Your task to perform on an android device: move a message to another label in the gmail app Image 0: 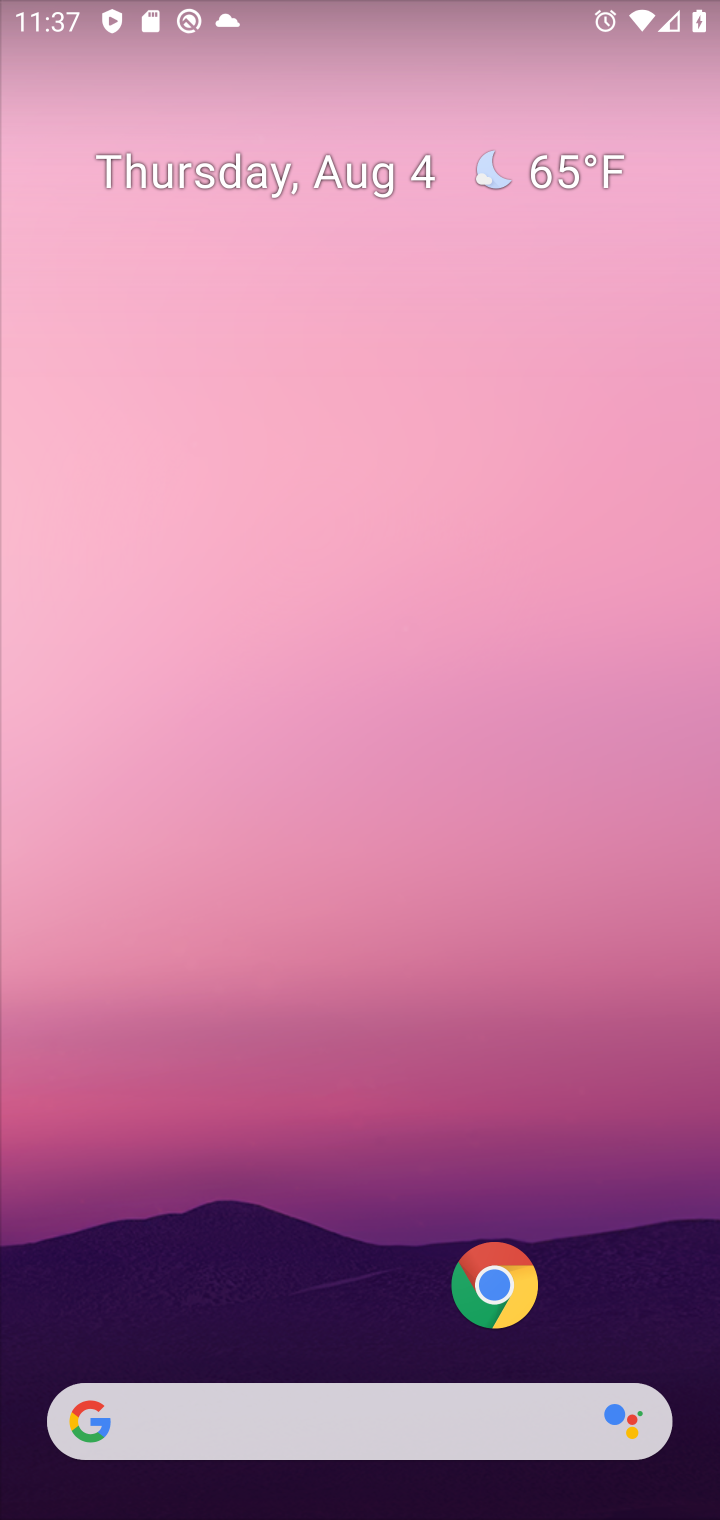
Step 0: drag from (316, 954) to (170, 334)
Your task to perform on an android device: move a message to another label in the gmail app Image 1: 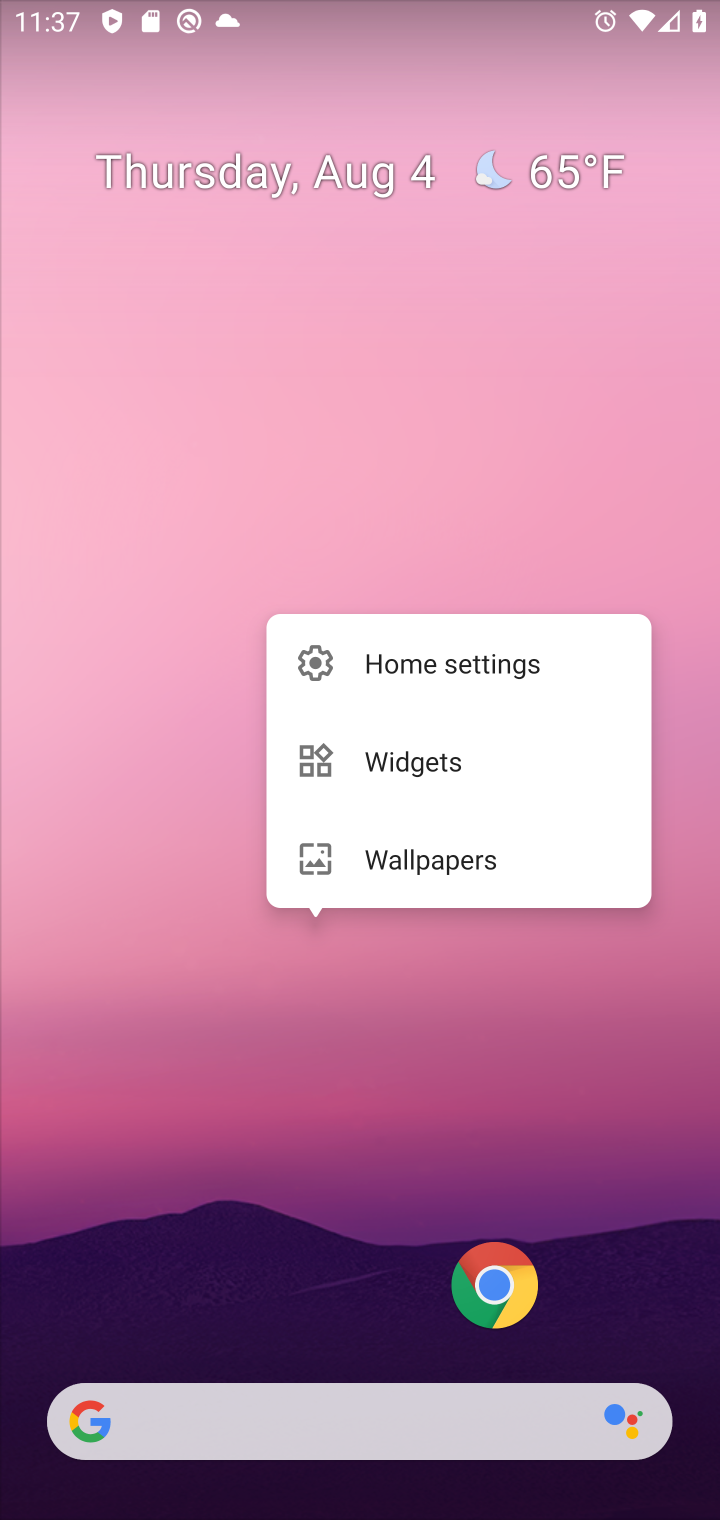
Step 1: click (118, 944)
Your task to perform on an android device: move a message to another label in the gmail app Image 2: 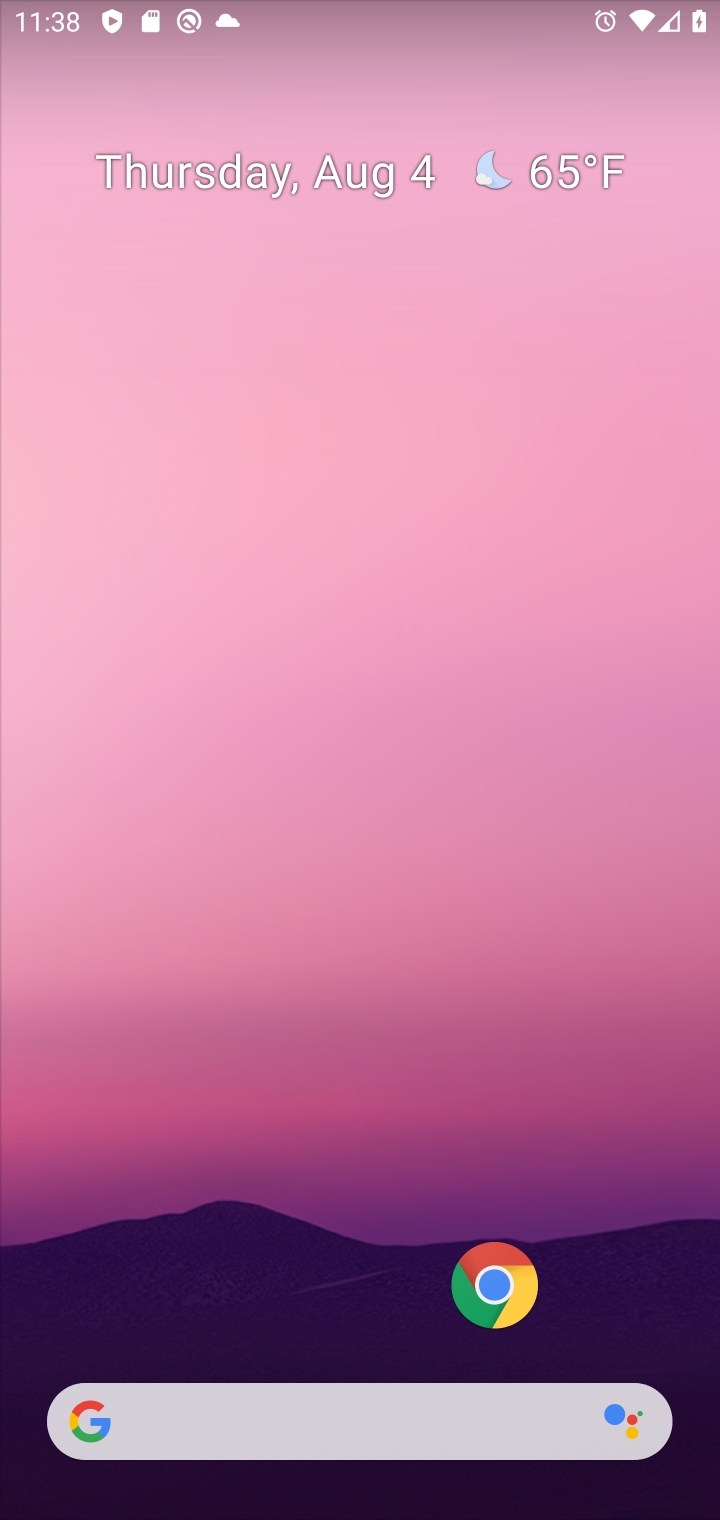
Step 2: drag from (328, 1038) to (310, 217)
Your task to perform on an android device: move a message to another label in the gmail app Image 3: 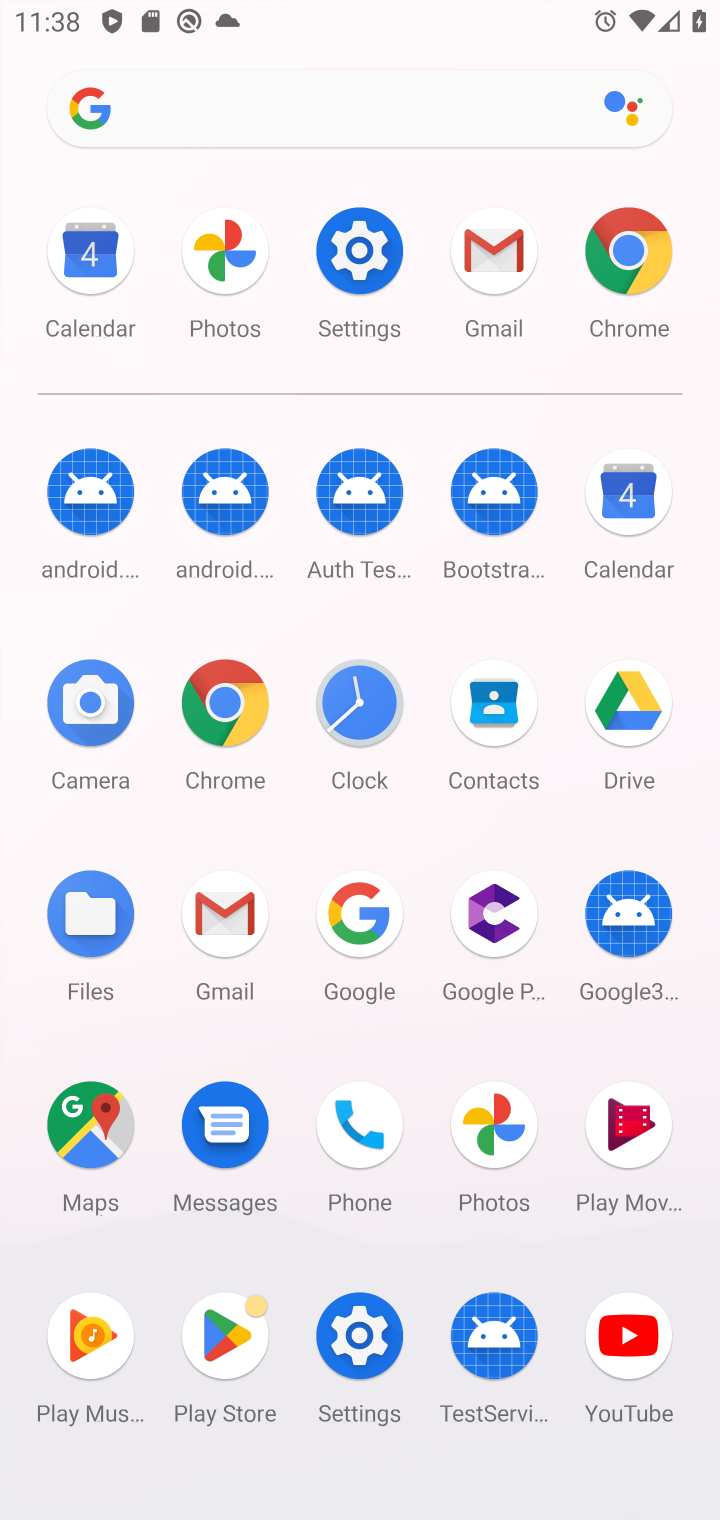
Step 3: click (518, 236)
Your task to perform on an android device: move a message to another label in the gmail app Image 4: 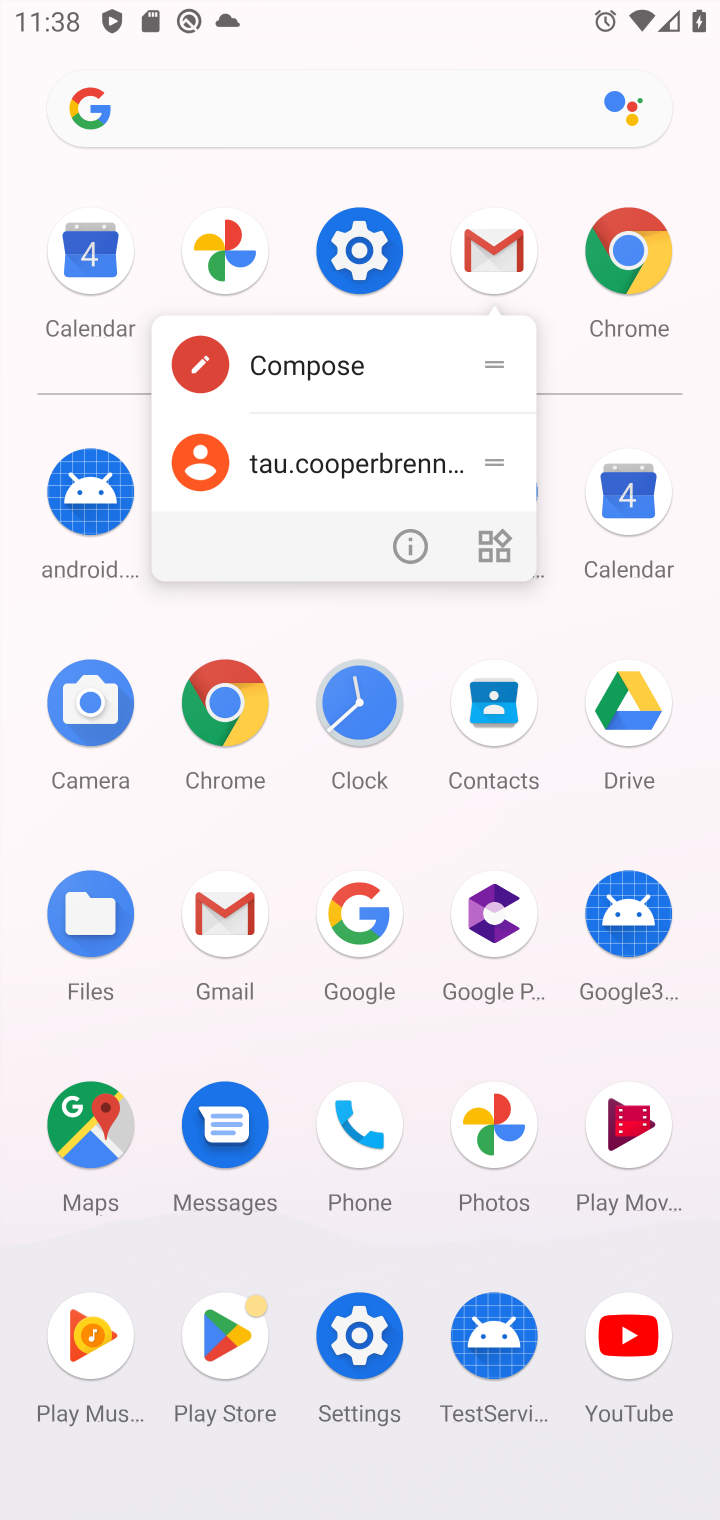
Step 4: click (479, 239)
Your task to perform on an android device: move a message to another label in the gmail app Image 5: 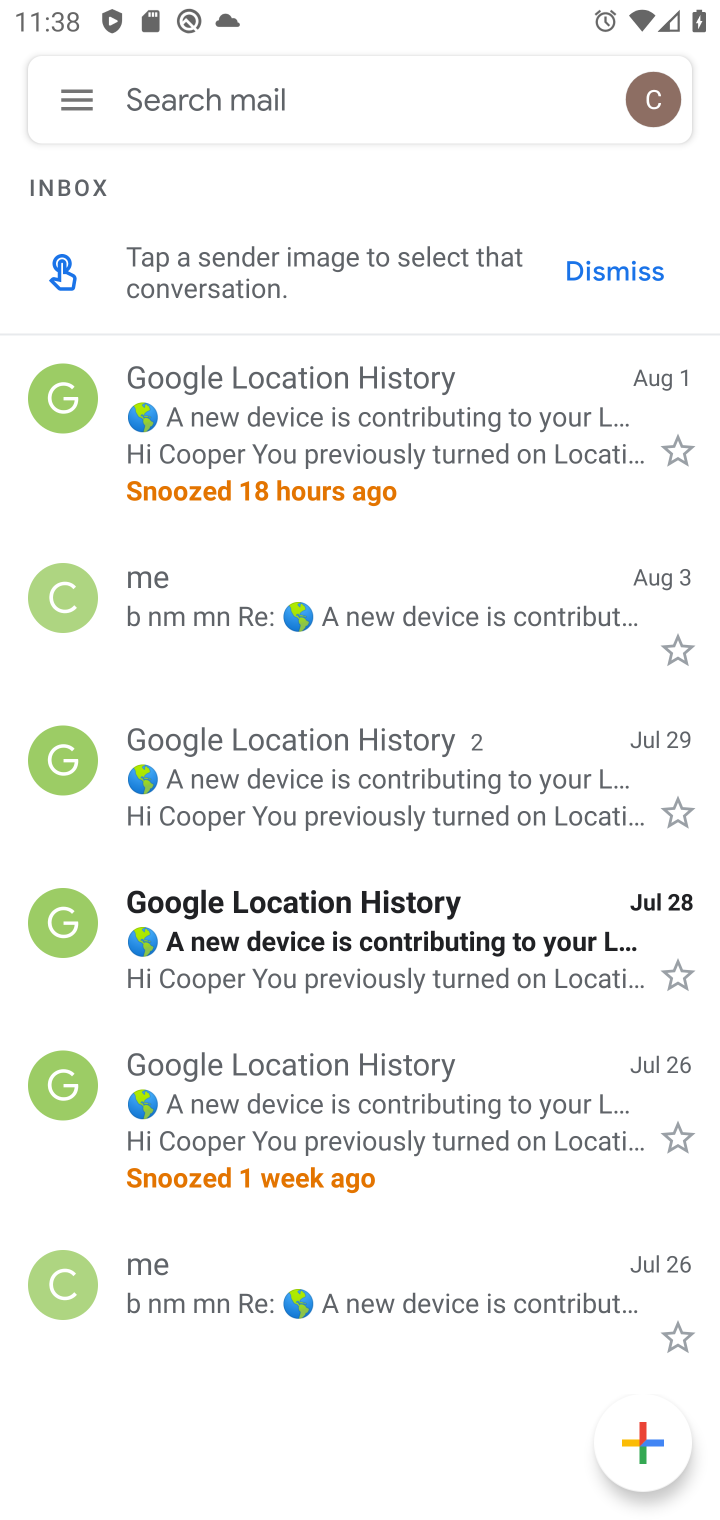
Step 5: task complete